Your task to perform on an android device: When is my next meeting? Image 0: 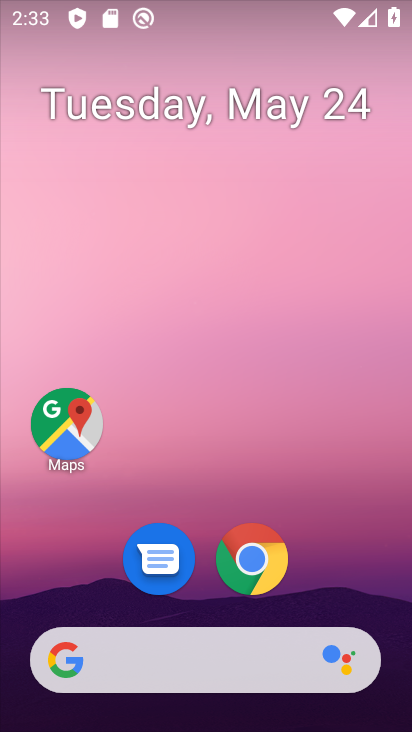
Step 0: drag from (209, 668) to (227, 277)
Your task to perform on an android device: When is my next meeting? Image 1: 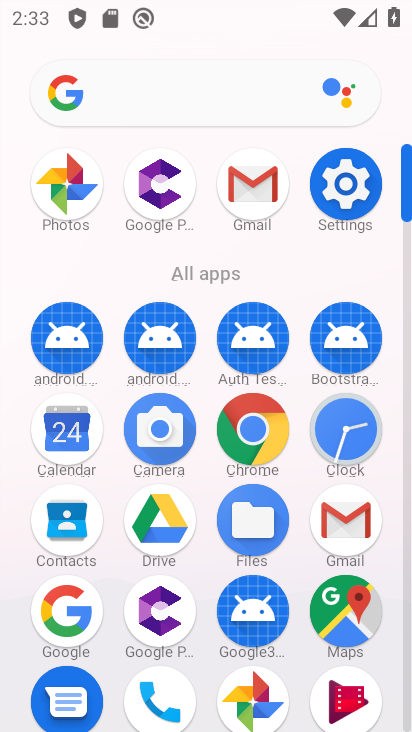
Step 1: click (56, 433)
Your task to perform on an android device: When is my next meeting? Image 2: 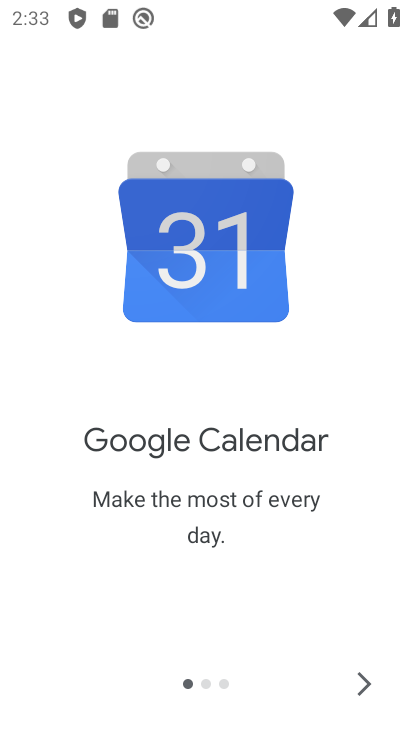
Step 2: click (358, 682)
Your task to perform on an android device: When is my next meeting? Image 3: 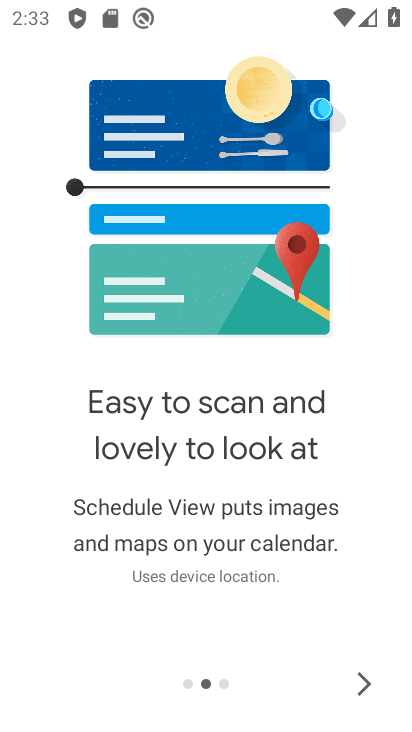
Step 3: click (358, 682)
Your task to perform on an android device: When is my next meeting? Image 4: 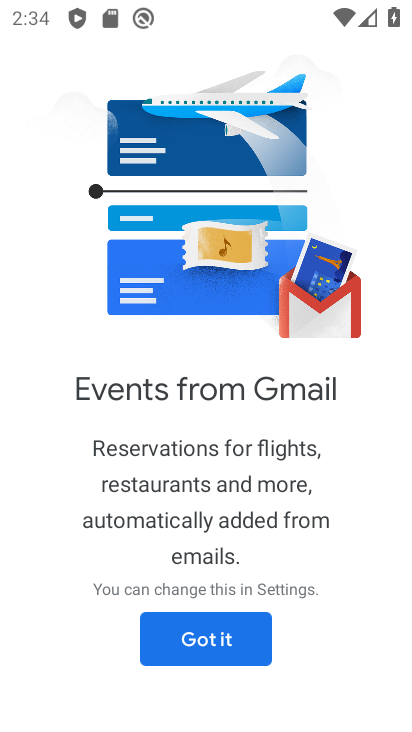
Step 4: click (188, 651)
Your task to perform on an android device: When is my next meeting? Image 5: 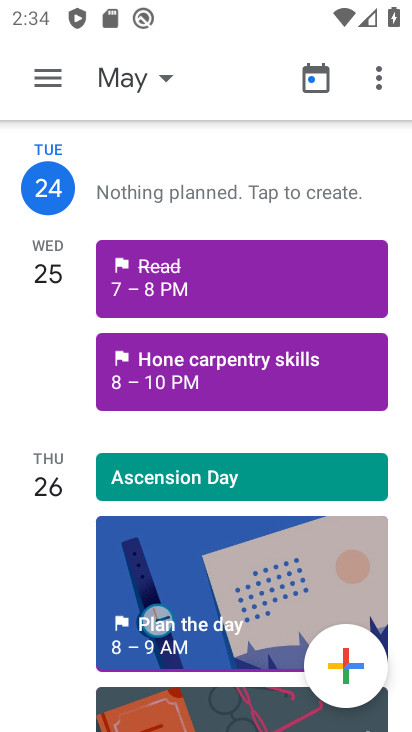
Step 5: task complete